Your task to perform on an android device: find which apps use the phone's location Image 0: 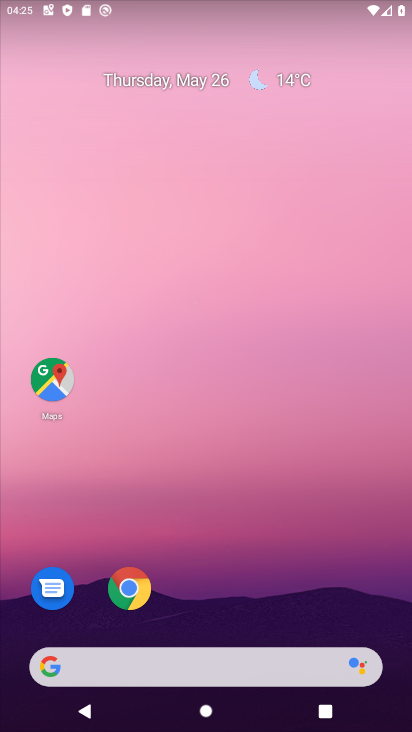
Step 0: drag from (344, 586) to (292, 30)
Your task to perform on an android device: find which apps use the phone's location Image 1: 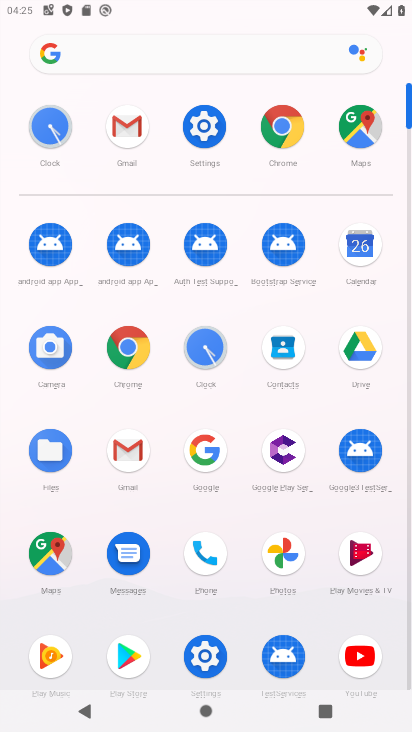
Step 1: click (213, 133)
Your task to perform on an android device: find which apps use the phone's location Image 2: 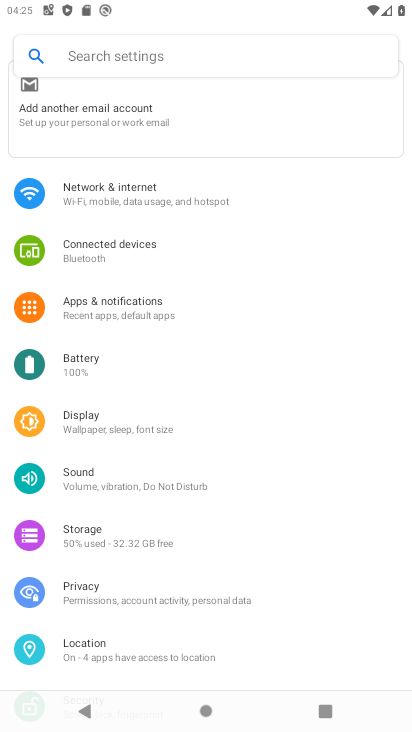
Step 2: click (150, 628)
Your task to perform on an android device: find which apps use the phone's location Image 3: 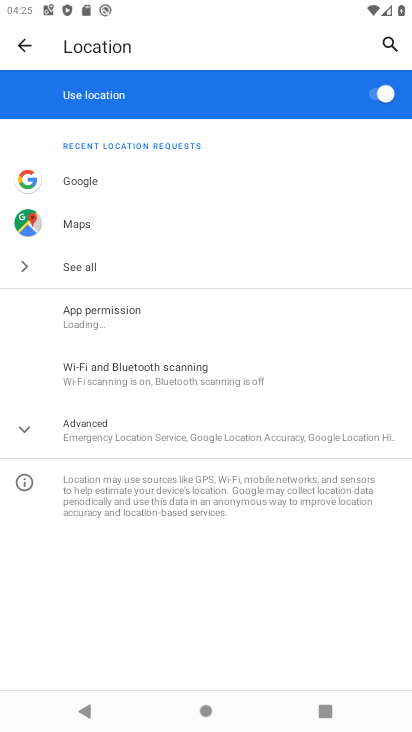
Step 3: task complete